Your task to perform on an android device: open app "Adobe Acrobat Reader: Edit PDF" (install if not already installed) and go to login screen Image 0: 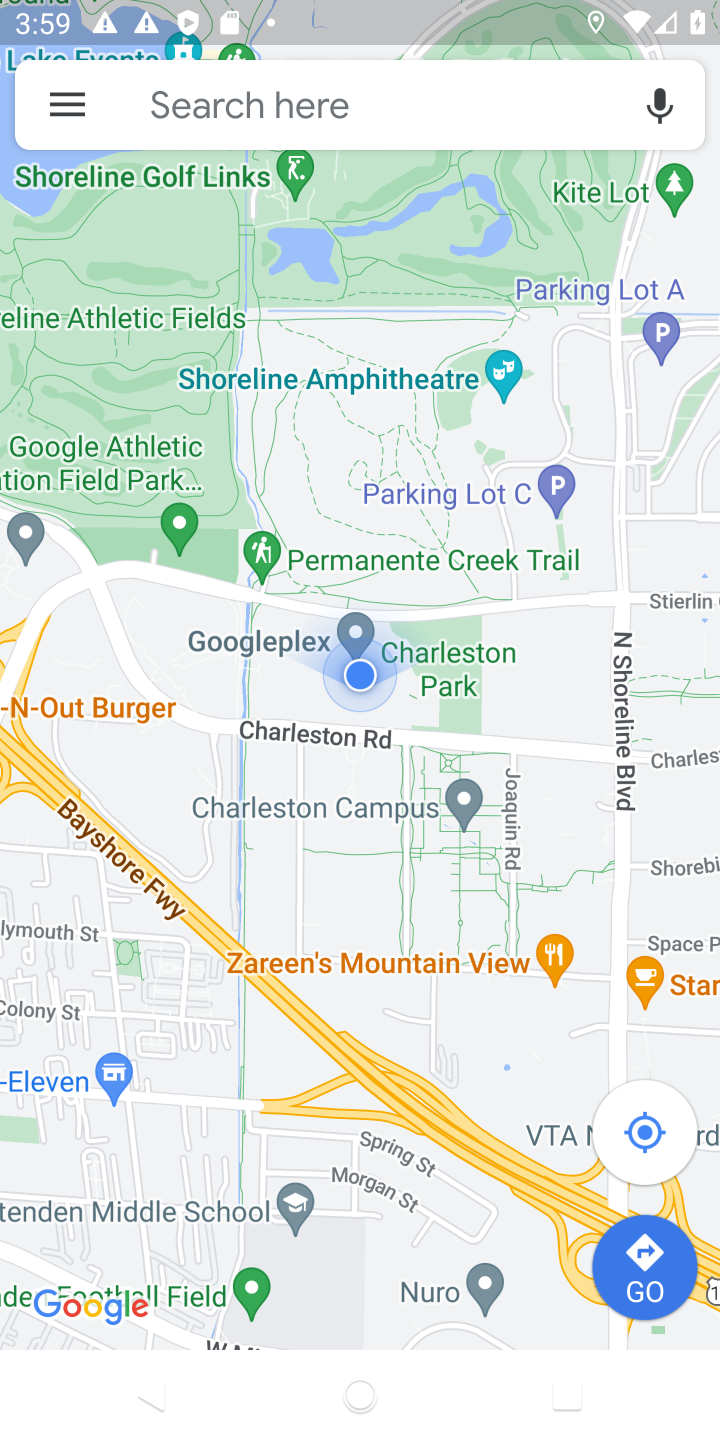
Step 0: press home button
Your task to perform on an android device: open app "Adobe Acrobat Reader: Edit PDF" (install if not already installed) and go to login screen Image 1: 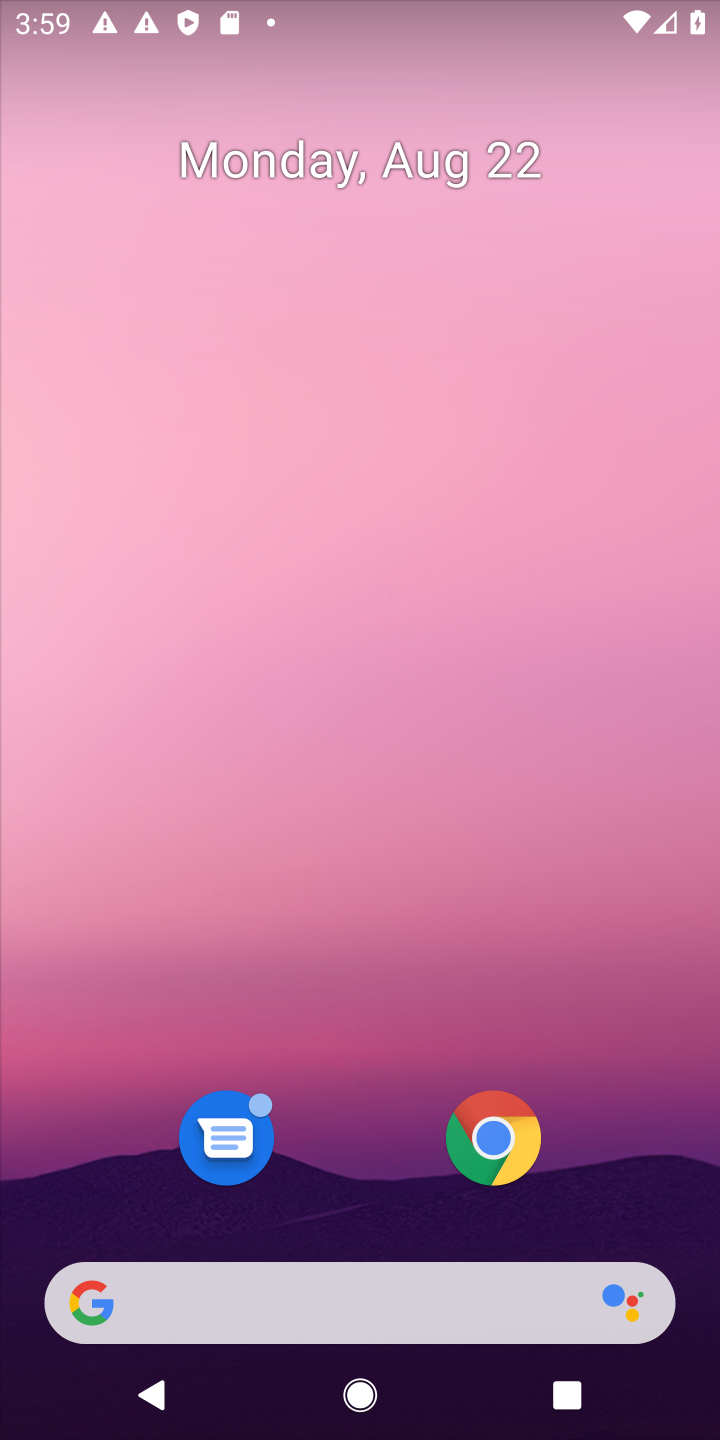
Step 1: click (345, 342)
Your task to perform on an android device: open app "Adobe Acrobat Reader: Edit PDF" (install if not already installed) and go to login screen Image 2: 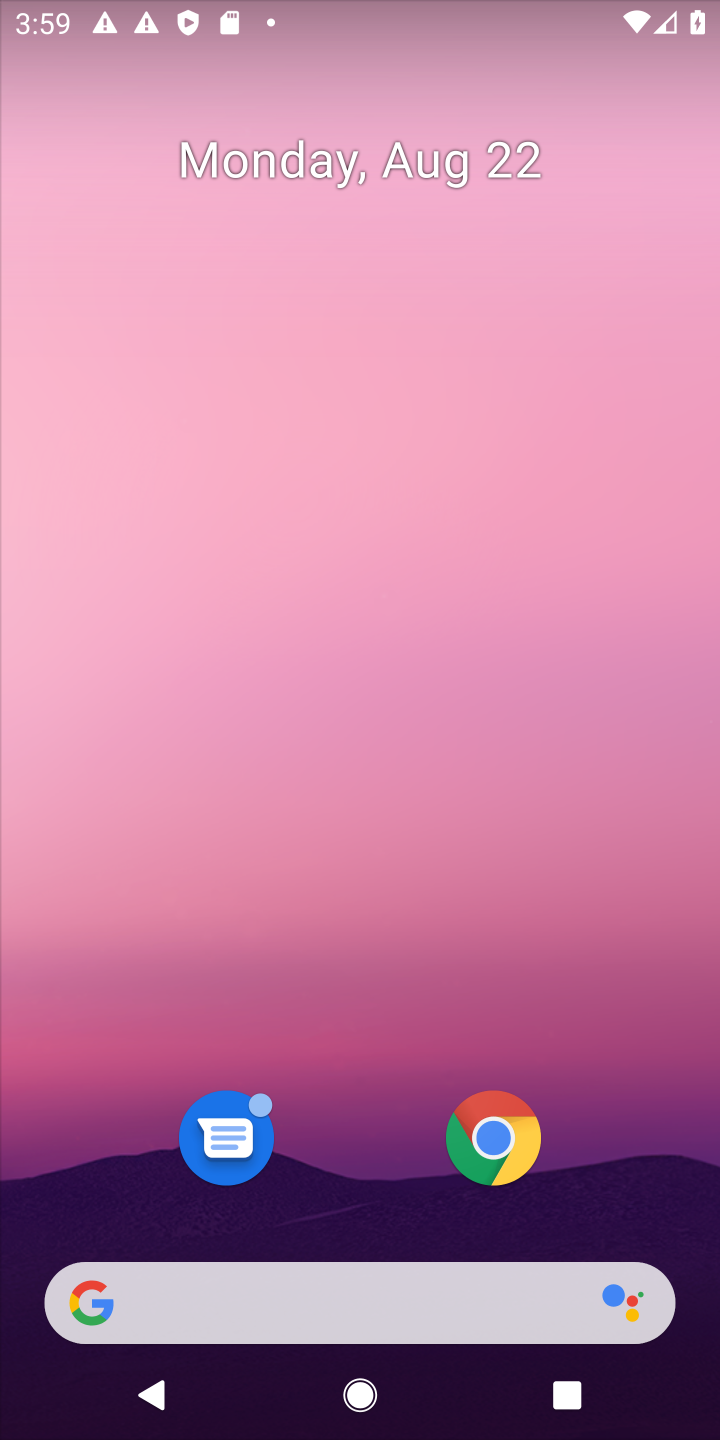
Step 2: drag from (368, 1271) to (383, 296)
Your task to perform on an android device: open app "Adobe Acrobat Reader: Edit PDF" (install if not already installed) and go to login screen Image 3: 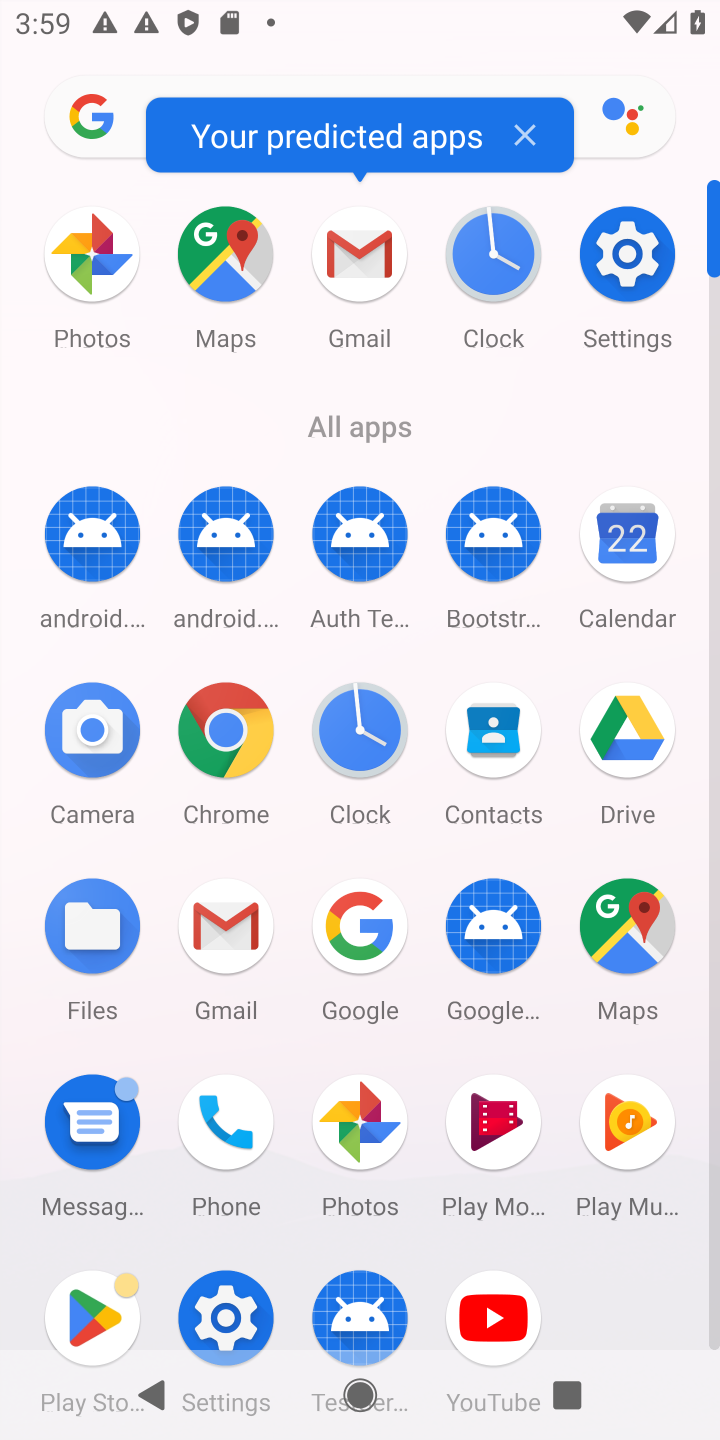
Step 3: click (62, 1327)
Your task to perform on an android device: open app "Adobe Acrobat Reader: Edit PDF" (install if not already installed) and go to login screen Image 4: 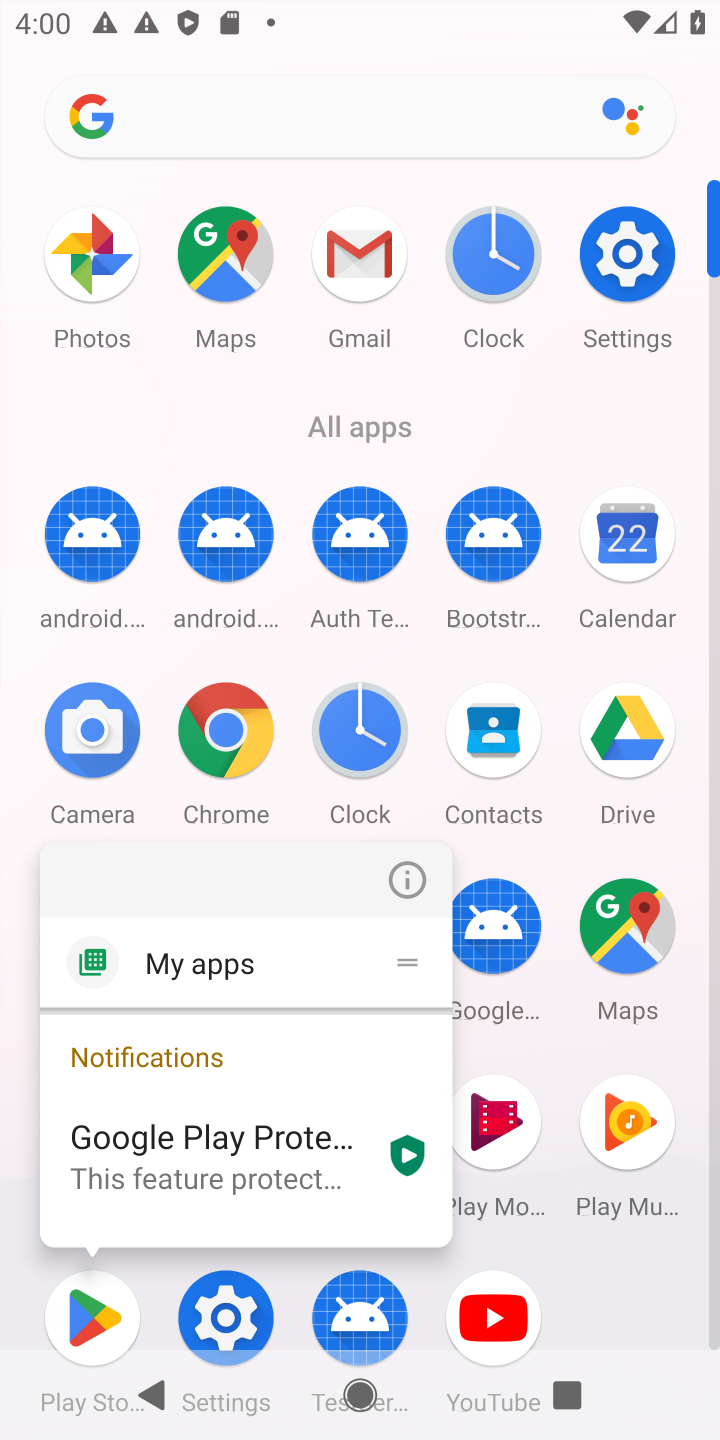
Step 4: click (91, 1310)
Your task to perform on an android device: open app "Adobe Acrobat Reader: Edit PDF" (install if not already installed) and go to login screen Image 5: 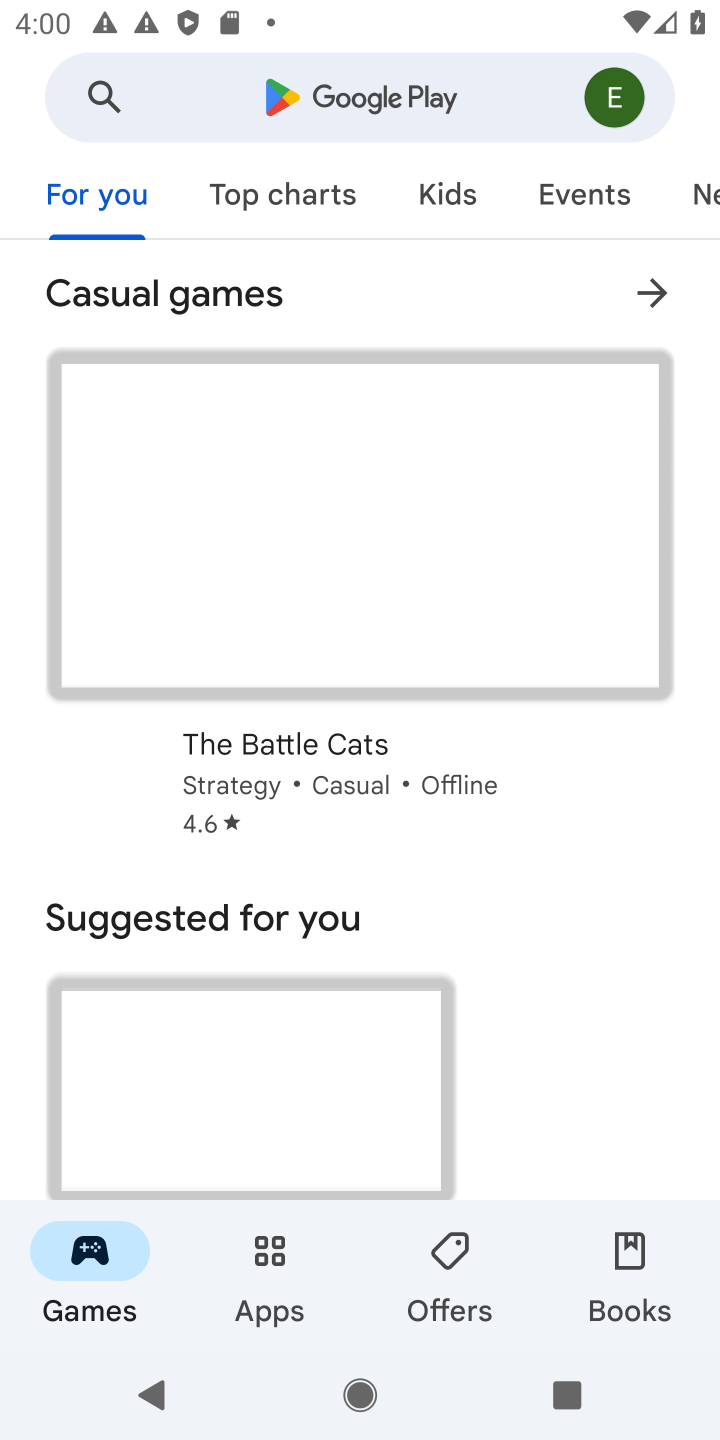
Step 5: click (364, 102)
Your task to perform on an android device: open app "Adobe Acrobat Reader: Edit PDF" (install if not already installed) and go to login screen Image 6: 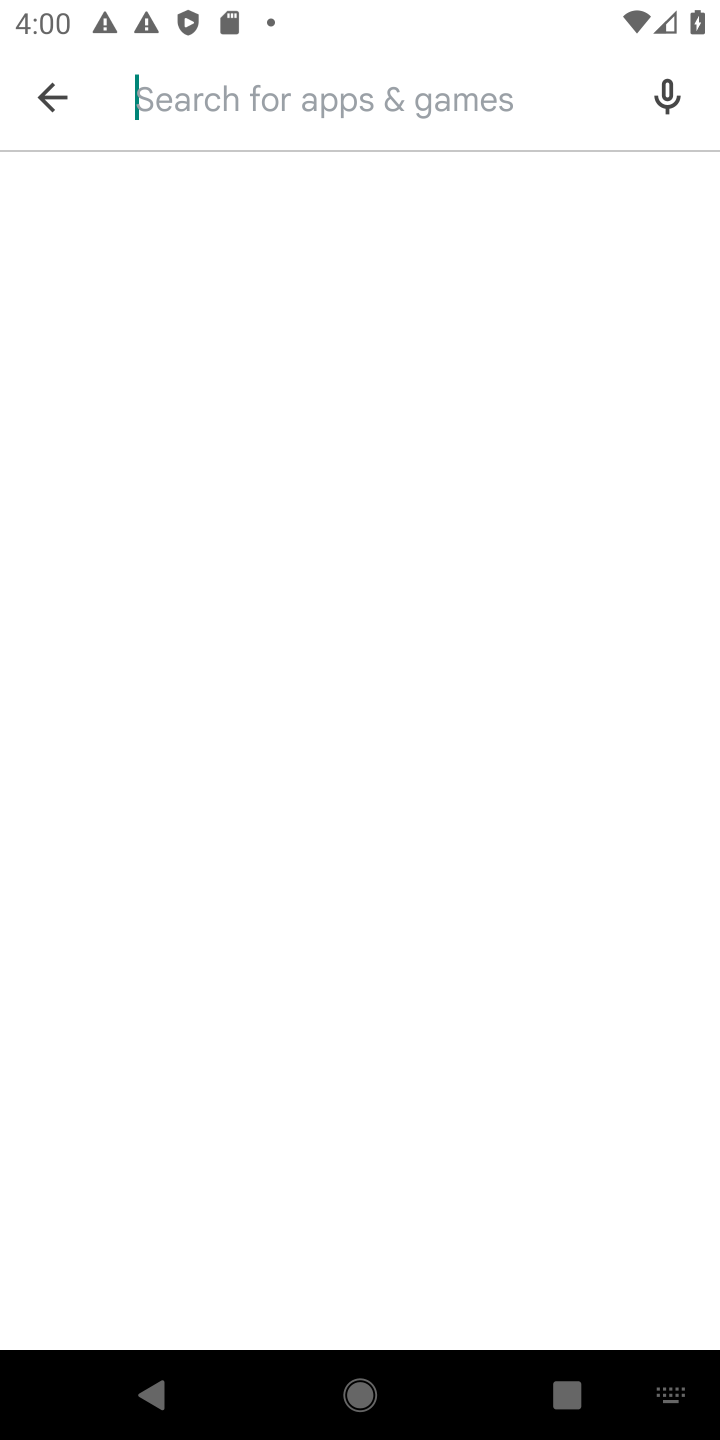
Step 6: type "Adobe Acrobat Reader: Edit PDF"
Your task to perform on an android device: open app "Adobe Acrobat Reader: Edit PDF" (install if not already installed) and go to login screen Image 7: 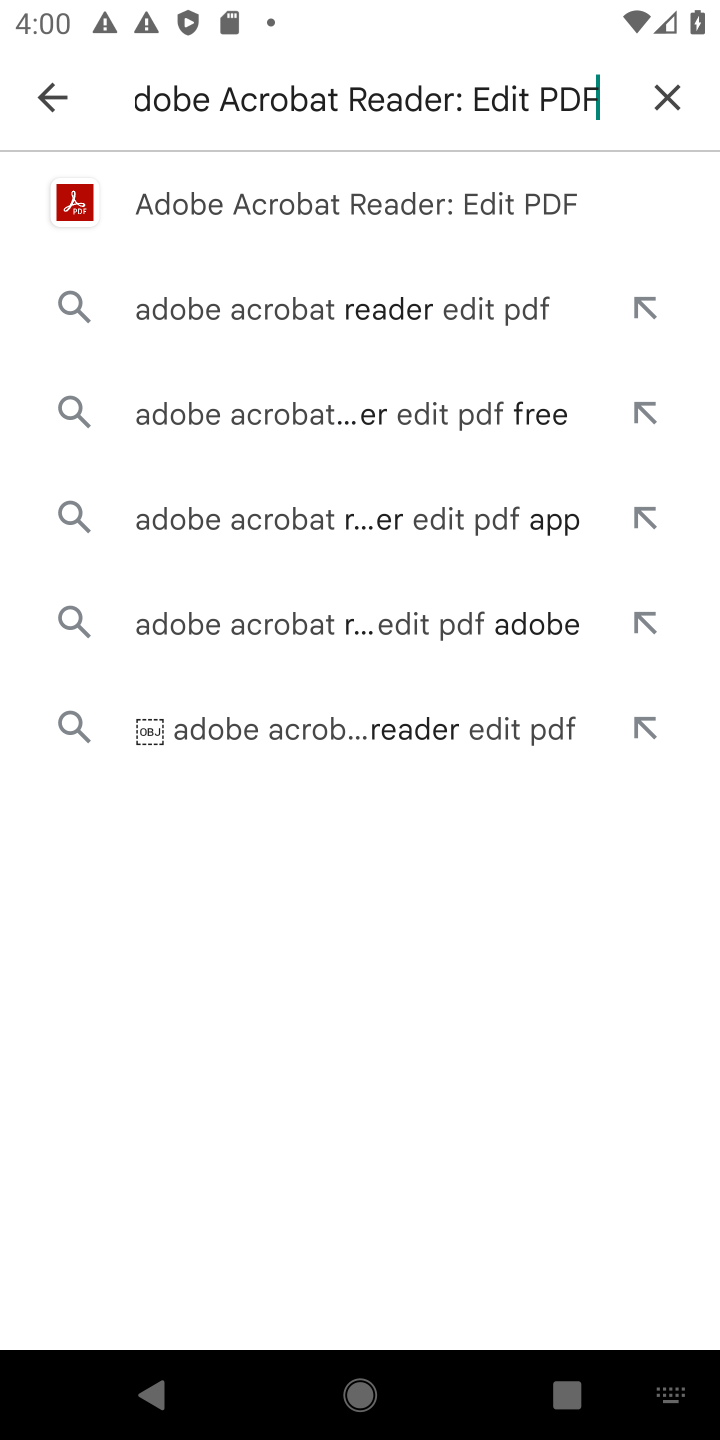
Step 7: click (352, 189)
Your task to perform on an android device: open app "Adobe Acrobat Reader: Edit PDF" (install if not already installed) and go to login screen Image 8: 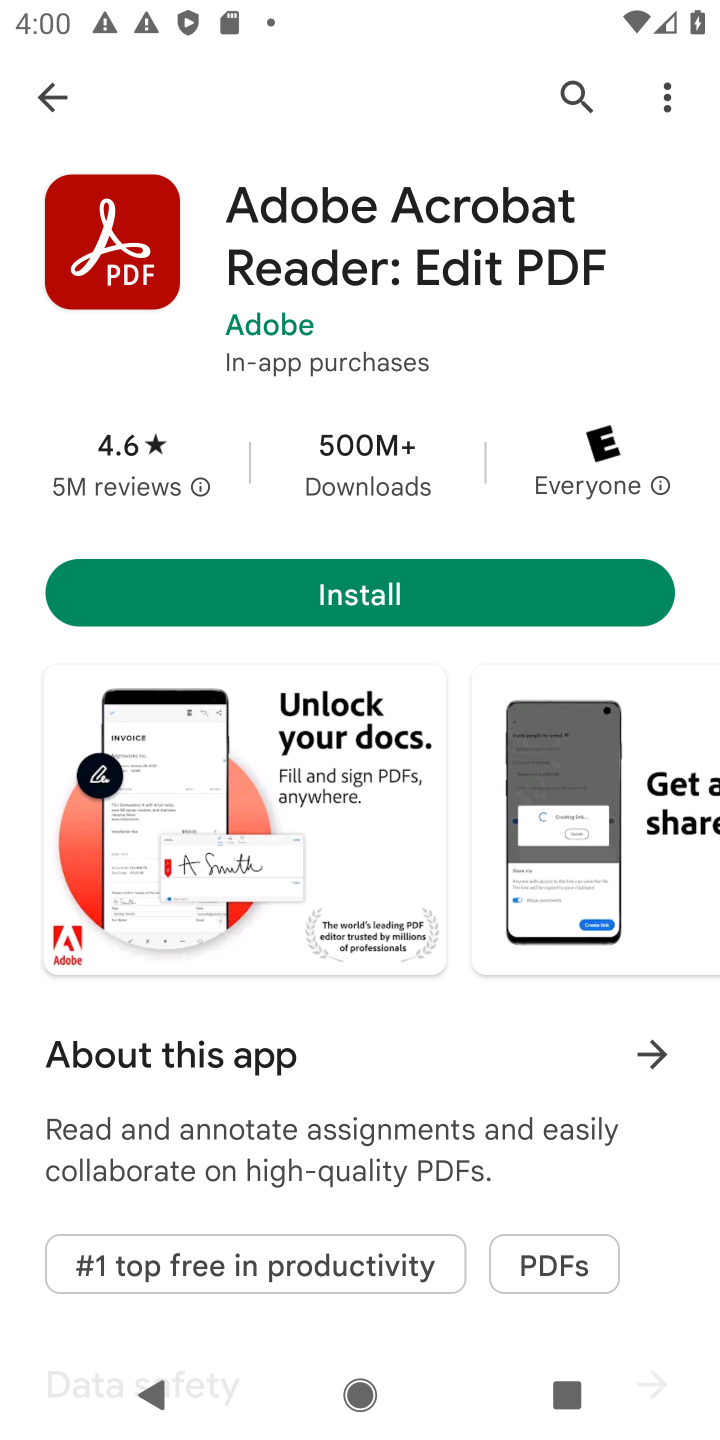
Step 8: click (364, 595)
Your task to perform on an android device: open app "Adobe Acrobat Reader: Edit PDF" (install if not already installed) and go to login screen Image 9: 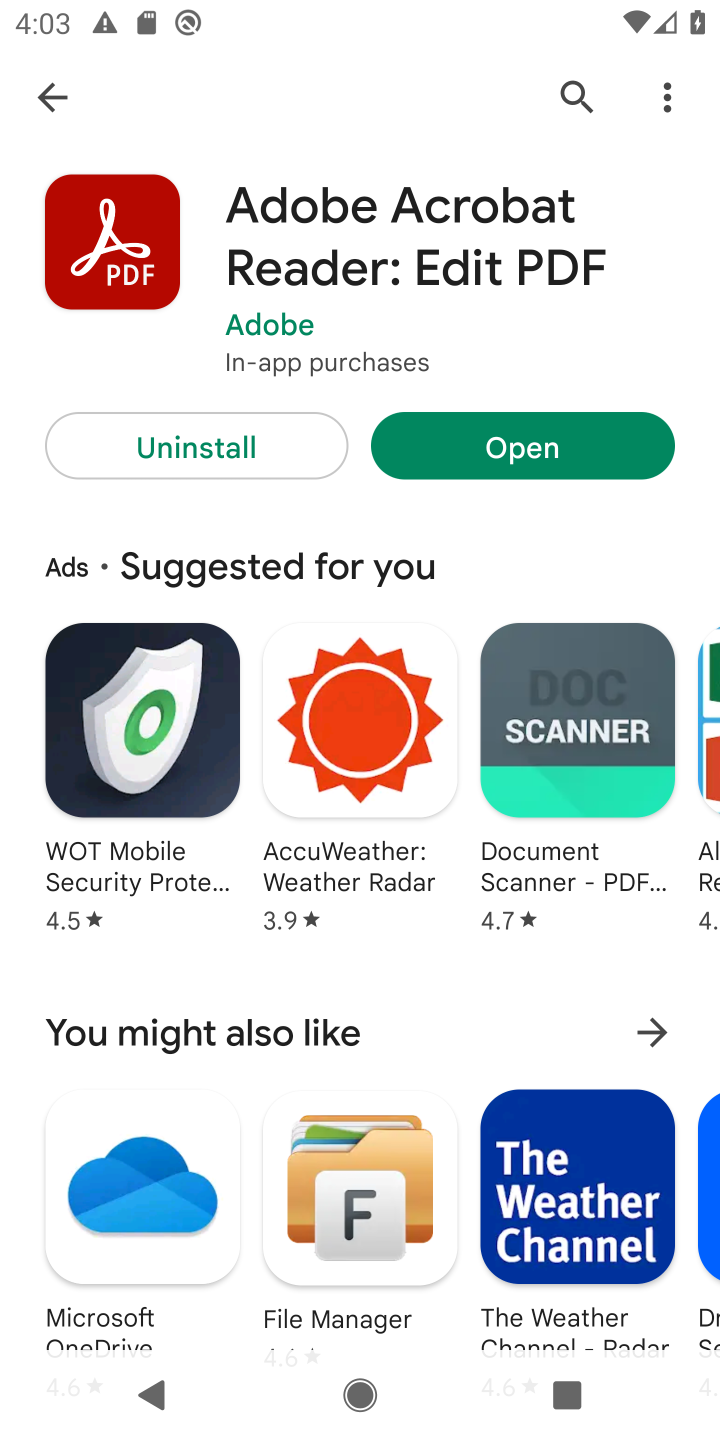
Step 9: click (577, 472)
Your task to perform on an android device: open app "Adobe Acrobat Reader: Edit PDF" (install if not already installed) and go to login screen Image 10: 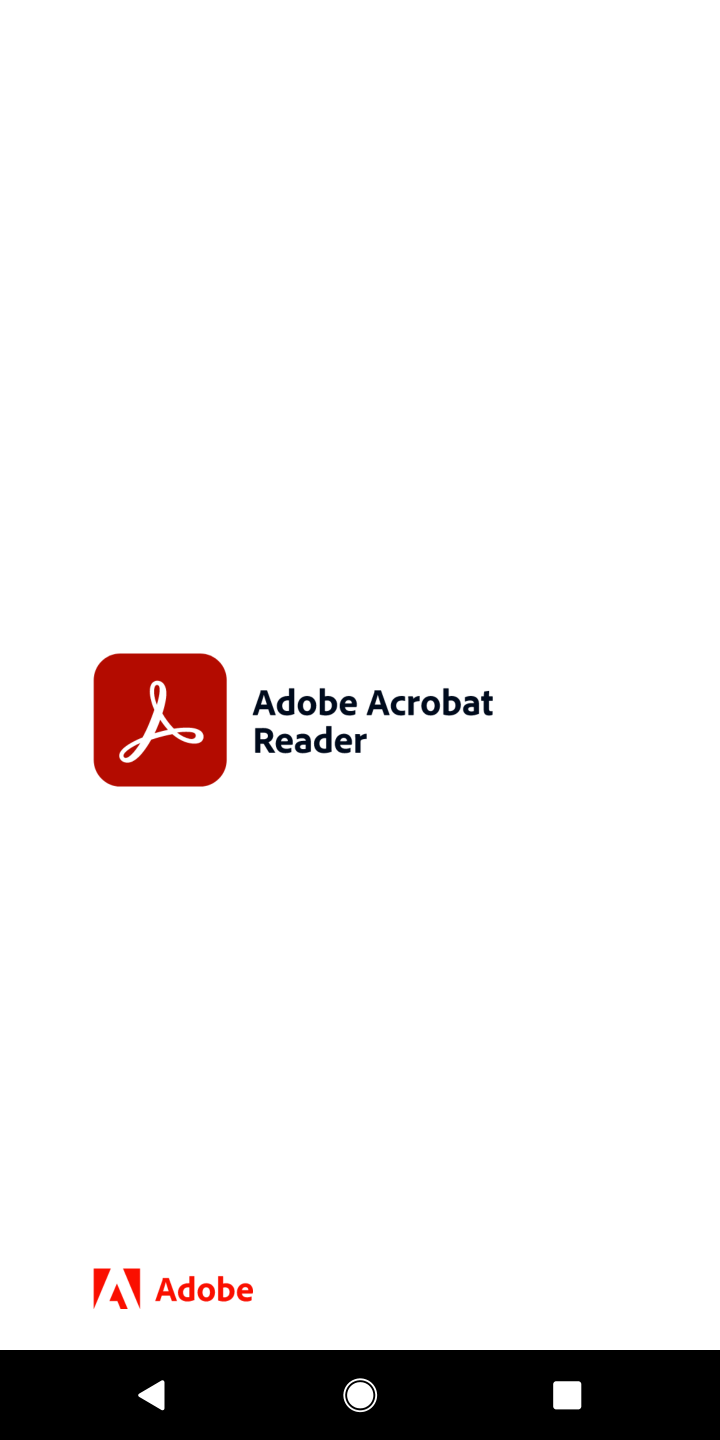
Step 10: task complete